Your task to perform on an android device: Go to Android settings Image 0: 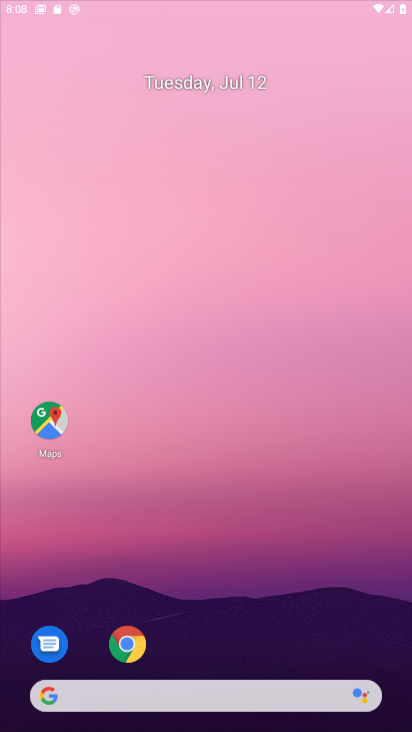
Step 0: click (283, 26)
Your task to perform on an android device: Go to Android settings Image 1: 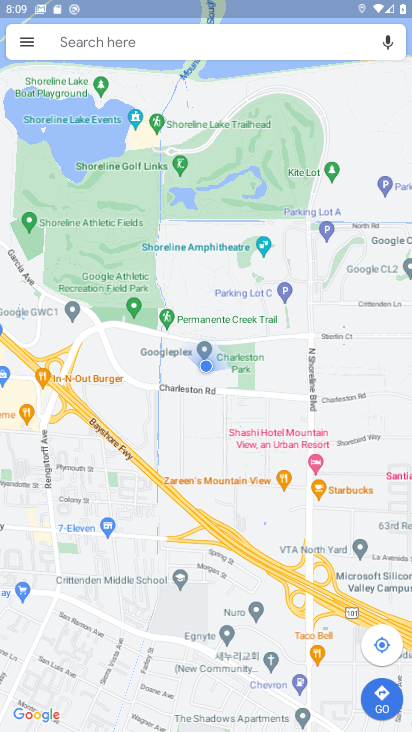
Step 1: press home button
Your task to perform on an android device: Go to Android settings Image 2: 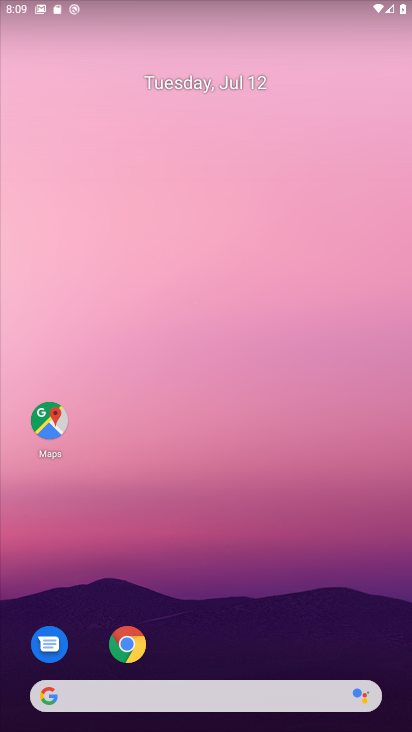
Step 2: drag from (293, 606) to (404, 105)
Your task to perform on an android device: Go to Android settings Image 3: 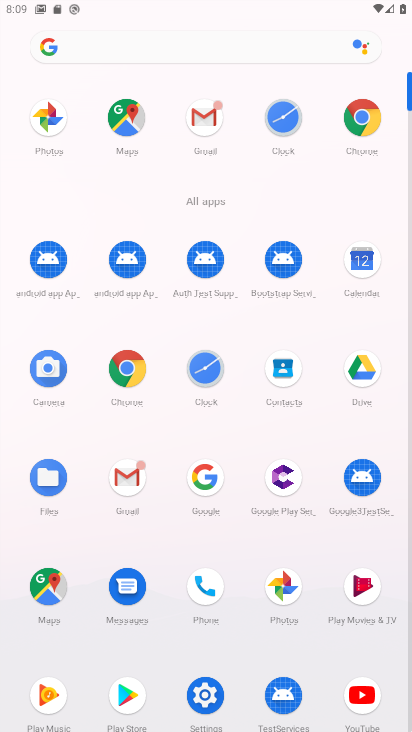
Step 3: click (205, 691)
Your task to perform on an android device: Go to Android settings Image 4: 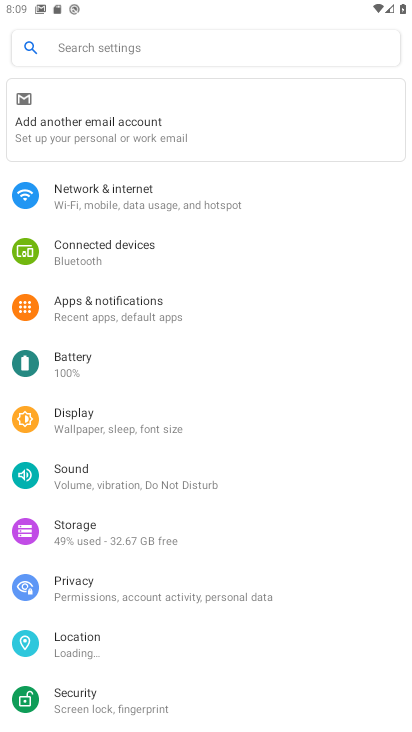
Step 4: task complete